Your task to perform on an android device: Open the calendar and show me this week's events? Image 0: 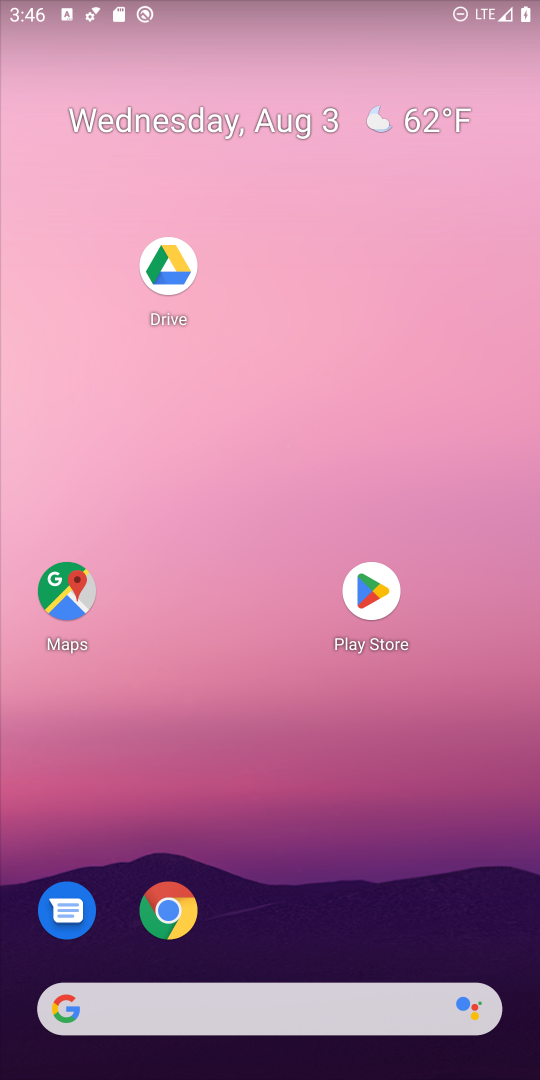
Step 0: drag from (479, 604) to (439, 10)
Your task to perform on an android device: Open the calendar and show me this week's events? Image 1: 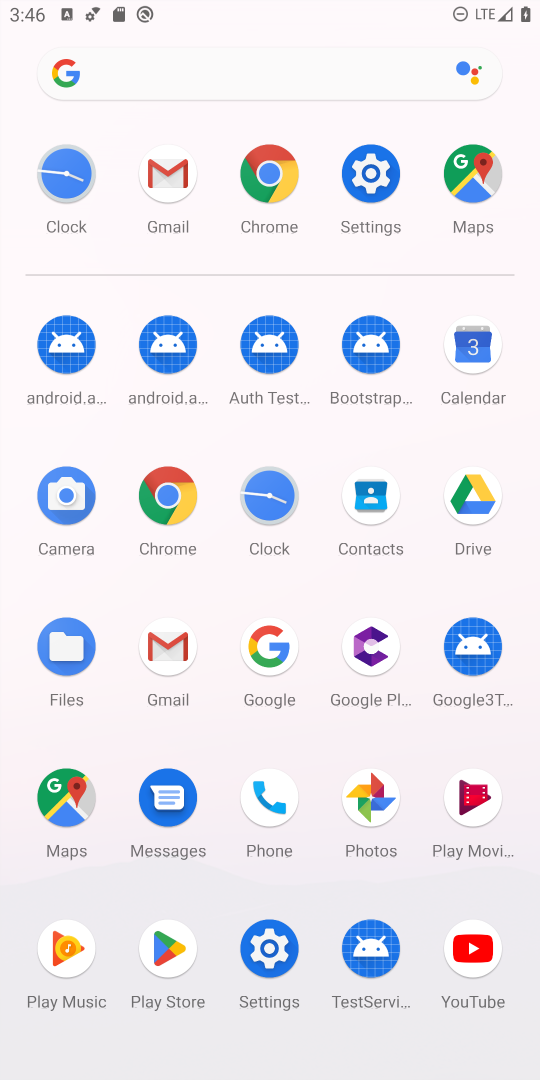
Step 1: click (464, 335)
Your task to perform on an android device: Open the calendar and show me this week's events? Image 2: 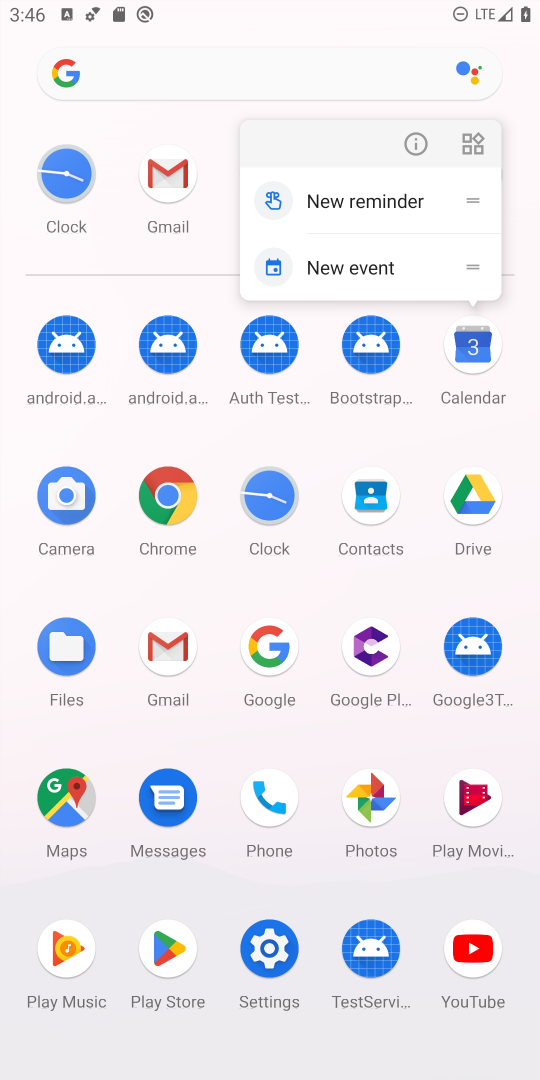
Step 2: click (462, 332)
Your task to perform on an android device: Open the calendar and show me this week's events? Image 3: 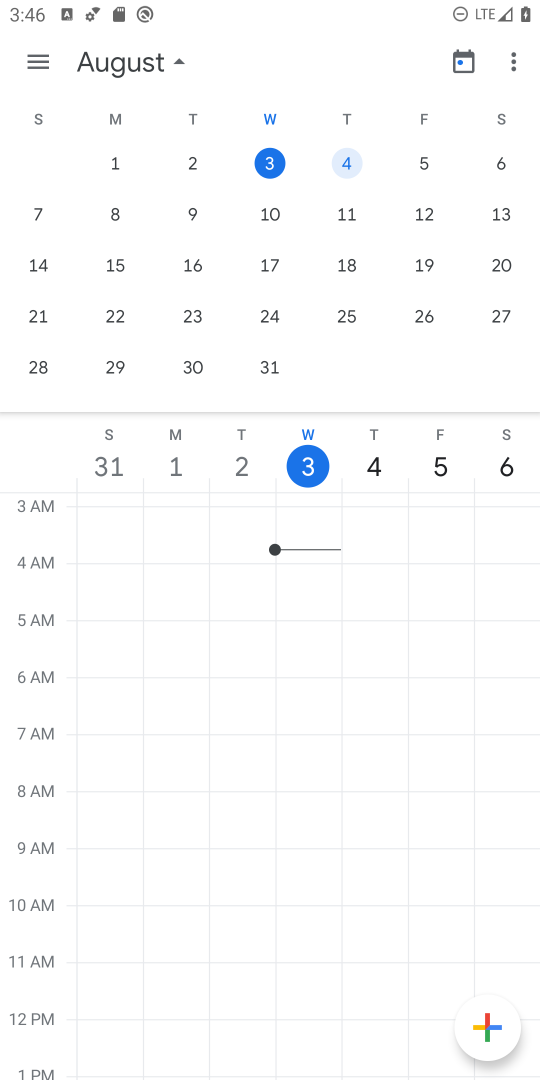
Step 3: click (349, 161)
Your task to perform on an android device: Open the calendar and show me this week's events? Image 4: 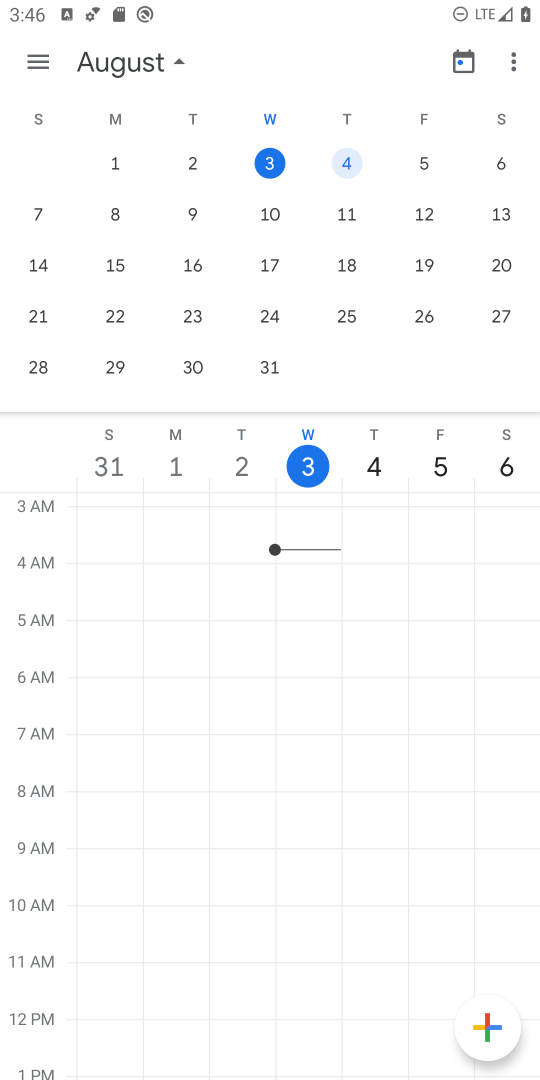
Step 4: task complete